Your task to perform on an android device: check android version Image 0: 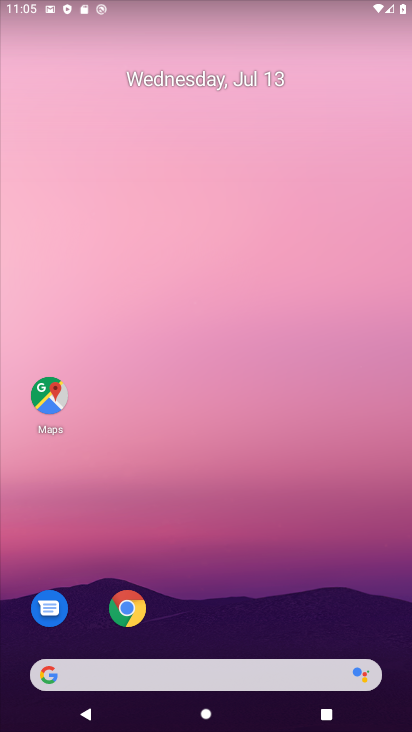
Step 0: drag from (247, 374) to (259, 26)
Your task to perform on an android device: check android version Image 1: 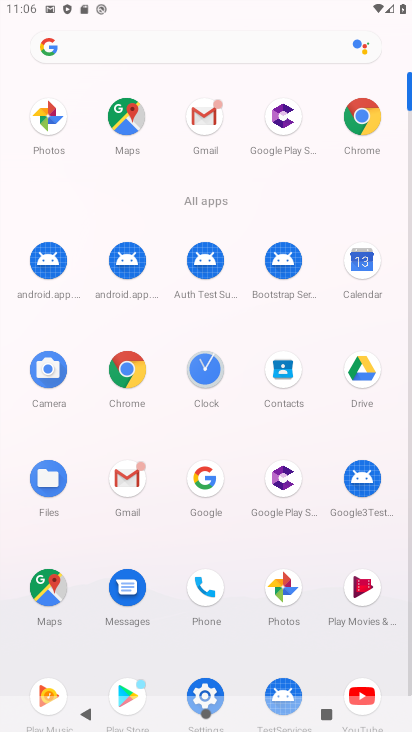
Step 1: click (203, 682)
Your task to perform on an android device: check android version Image 2: 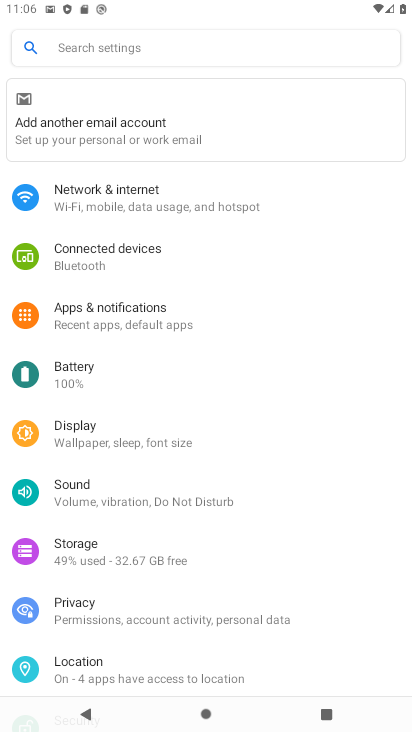
Step 2: drag from (203, 682) to (215, 208)
Your task to perform on an android device: check android version Image 3: 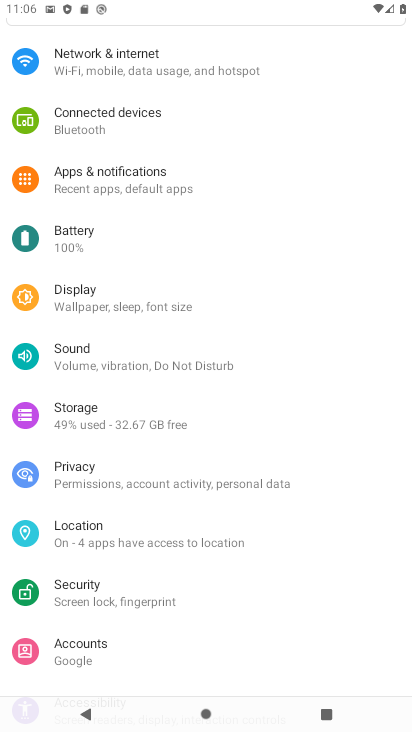
Step 3: drag from (207, 666) to (249, 271)
Your task to perform on an android device: check android version Image 4: 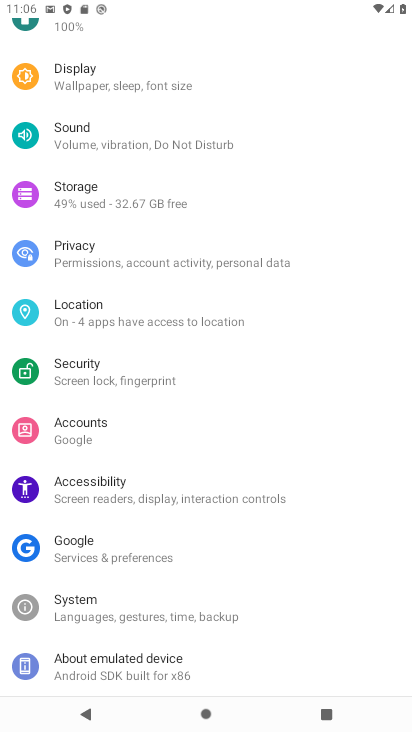
Step 4: click (105, 659)
Your task to perform on an android device: check android version Image 5: 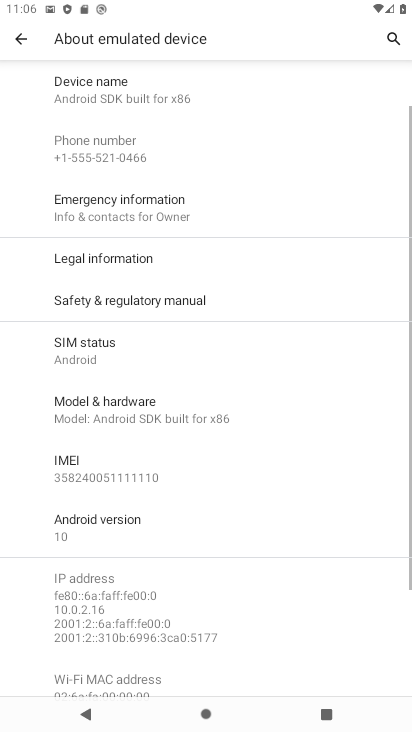
Step 5: click (121, 520)
Your task to perform on an android device: check android version Image 6: 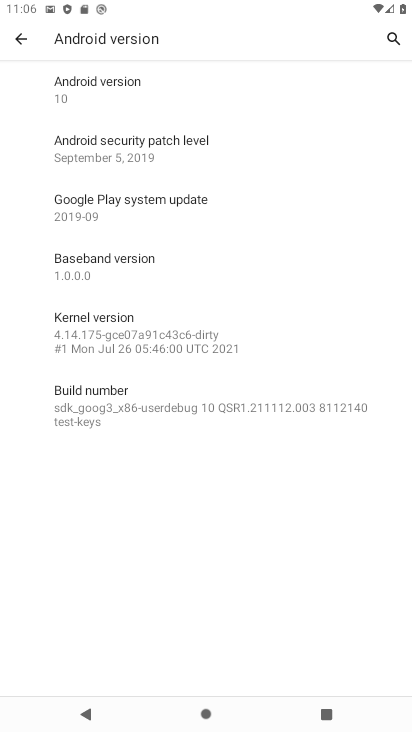
Step 6: click (119, 83)
Your task to perform on an android device: check android version Image 7: 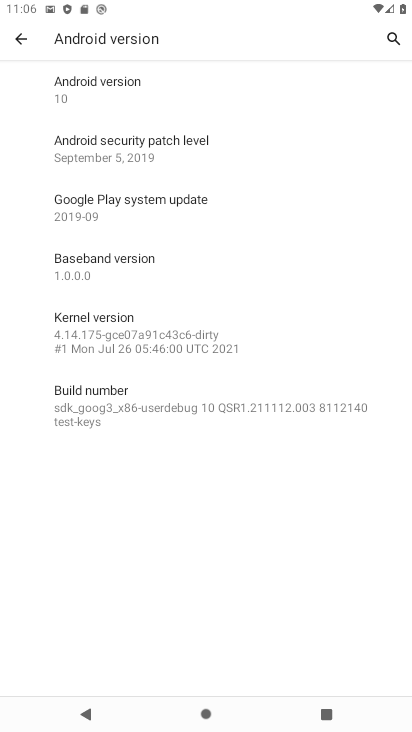
Step 7: task complete